Your task to perform on an android device: change the clock style Image 0: 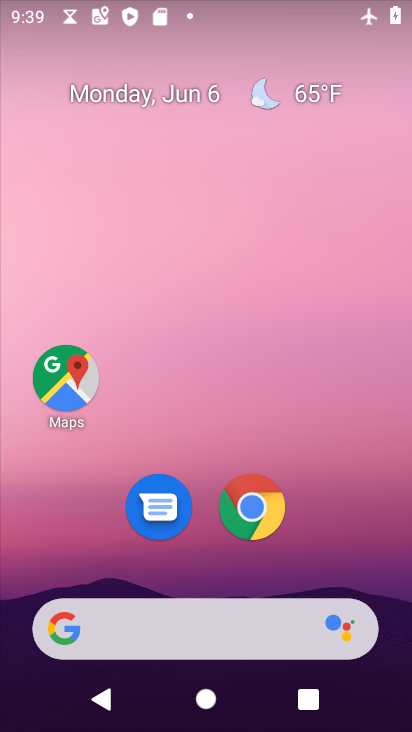
Step 0: drag from (336, 563) to (320, 278)
Your task to perform on an android device: change the clock style Image 1: 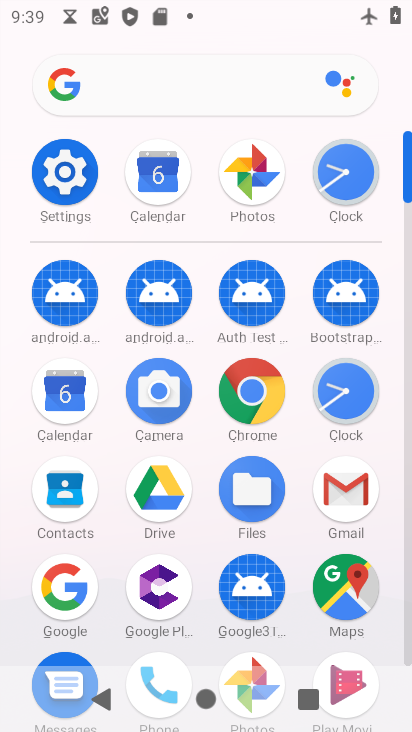
Step 1: click (345, 157)
Your task to perform on an android device: change the clock style Image 2: 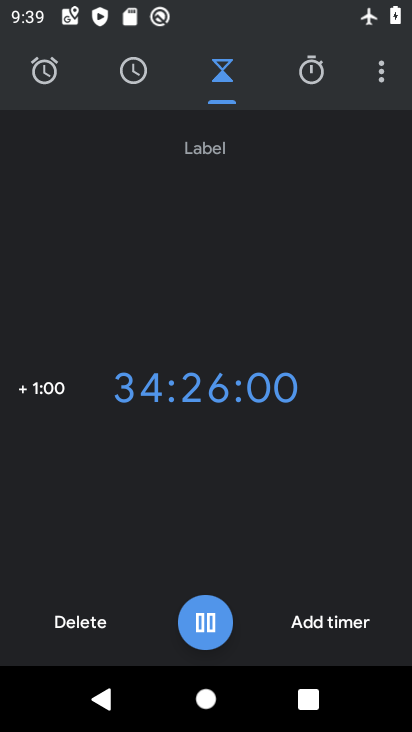
Step 2: click (373, 77)
Your task to perform on an android device: change the clock style Image 3: 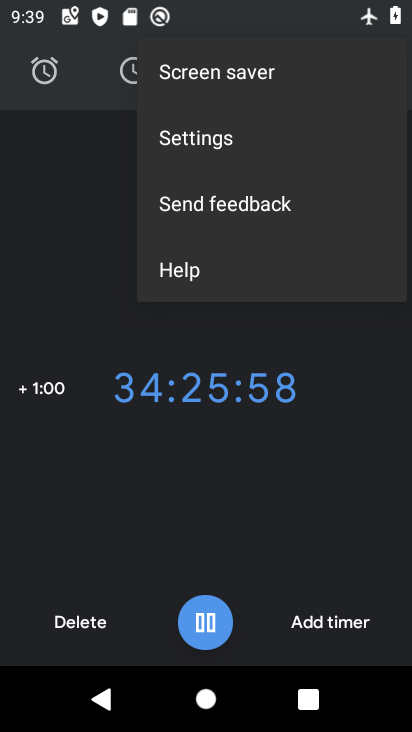
Step 3: click (213, 137)
Your task to perform on an android device: change the clock style Image 4: 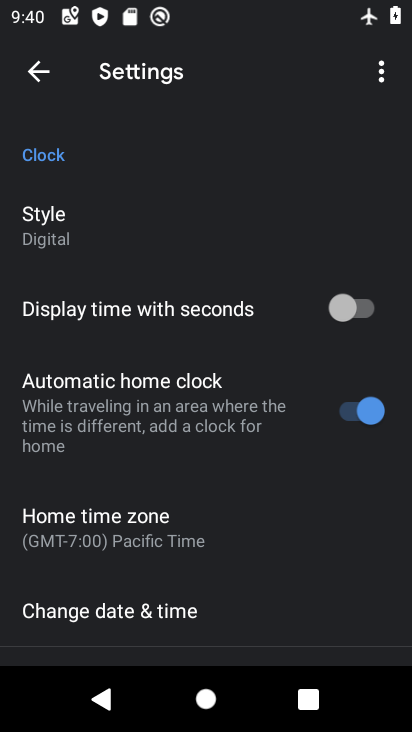
Step 4: click (81, 222)
Your task to perform on an android device: change the clock style Image 5: 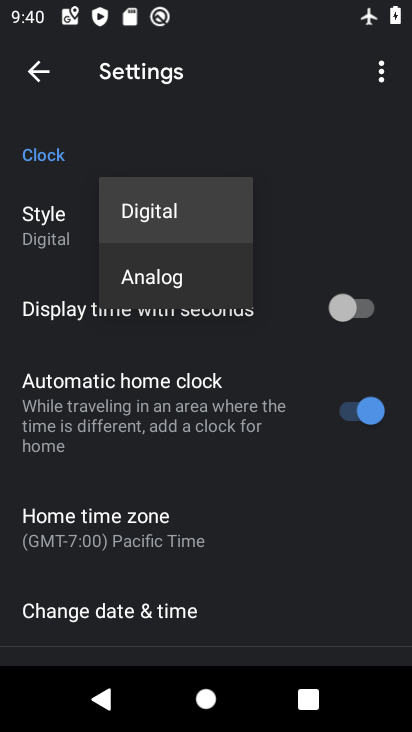
Step 5: click (161, 274)
Your task to perform on an android device: change the clock style Image 6: 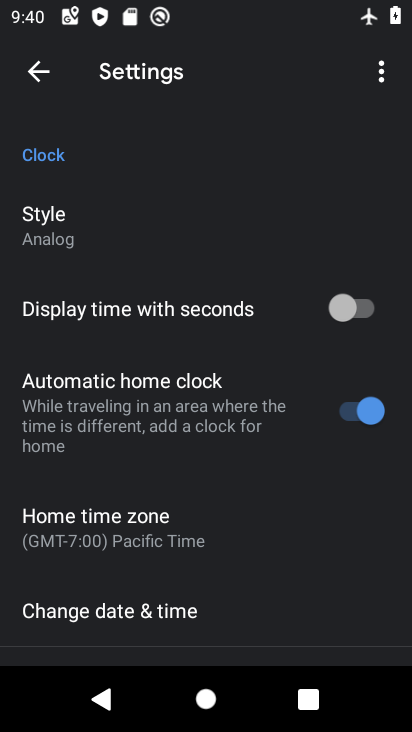
Step 6: task complete